Your task to perform on an android device: Go to eBay Image 0: 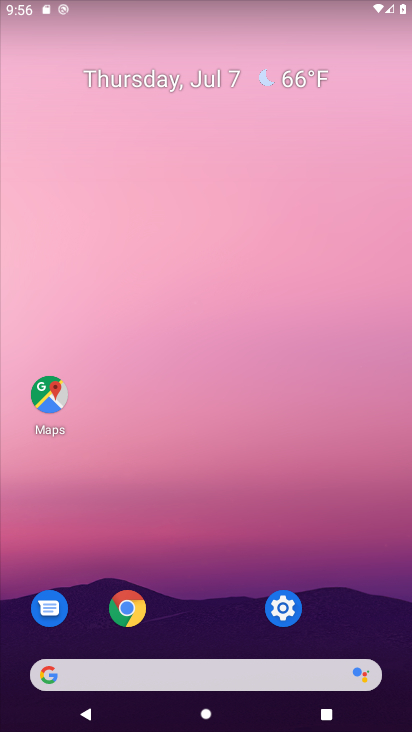
Step 0: click (136, 604)
Your task to perform on an android device: Go to eBay Image 1: 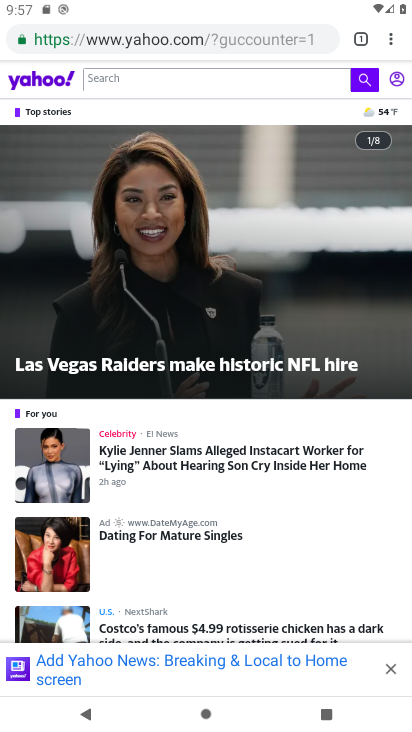
Step 1: click (355, 39)
Your task to perform on an android device: Go to eBay Image 2: 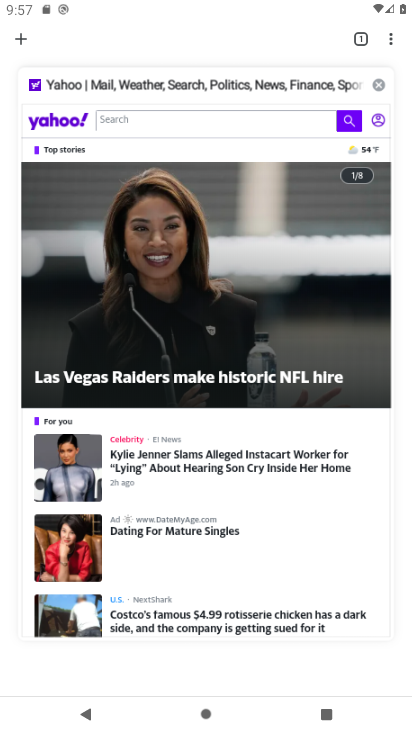
Step 2: click (21, 40)
Your task to perform on an android device: Go to eBay Image 3: 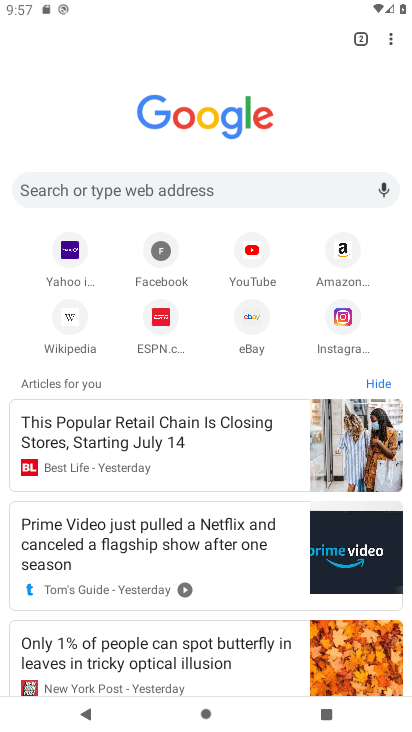
Step 3: click (249, 331)
Your task to perform on an android device: Go to eBay Image 4: 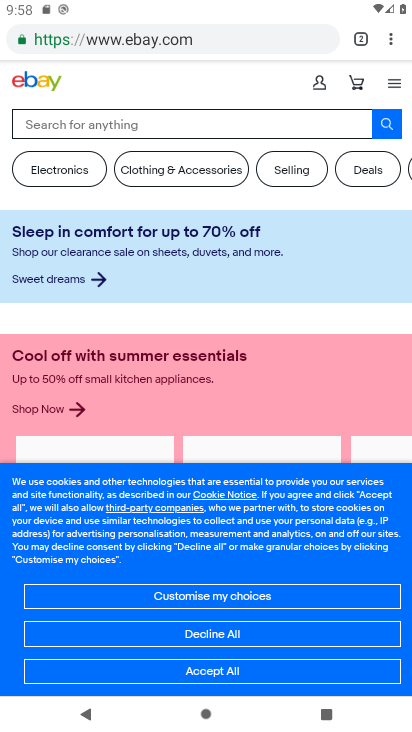
Step 4: click (214, 674)
Your task to perform on an android device: Go to eBay Image 5: 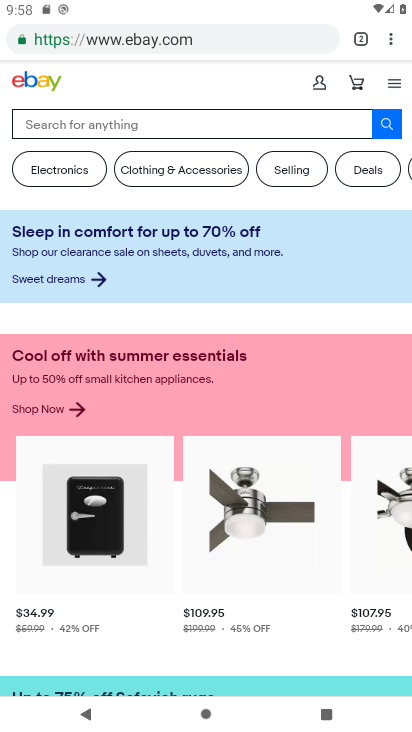
Step 5: task complete